Your task to perform on an android device: choose inbox layout in the gmail app Image 0: 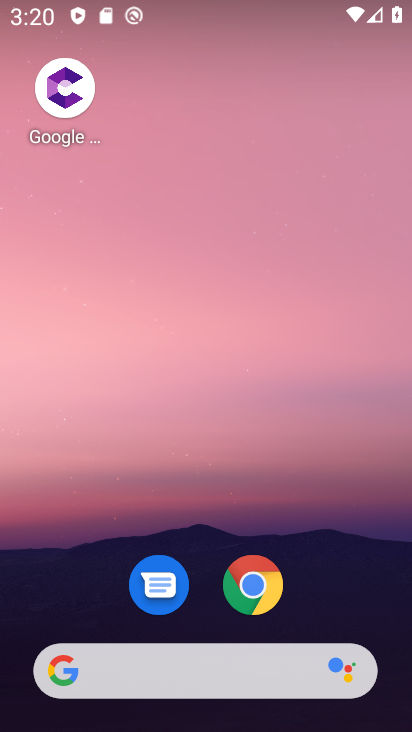
Step 0: drag from (191, 665) to (257, 11)
Your task to perform on an android device: choose inbox layout in the gmail app Image 1: 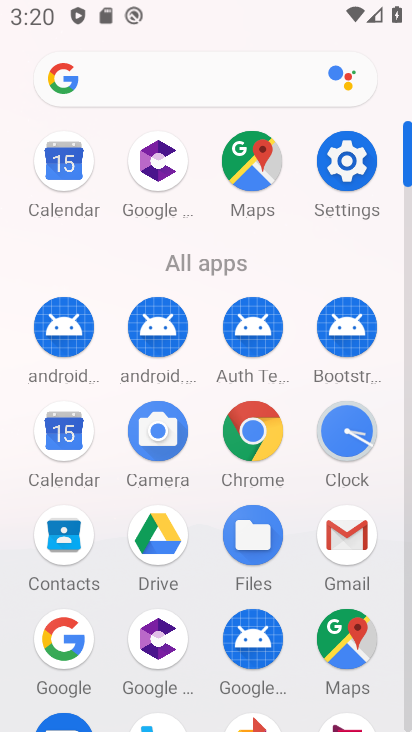
Step 1: click (336, 535)
Your task to perform on an android device: choose inbox layout in the gmail app Image 2: 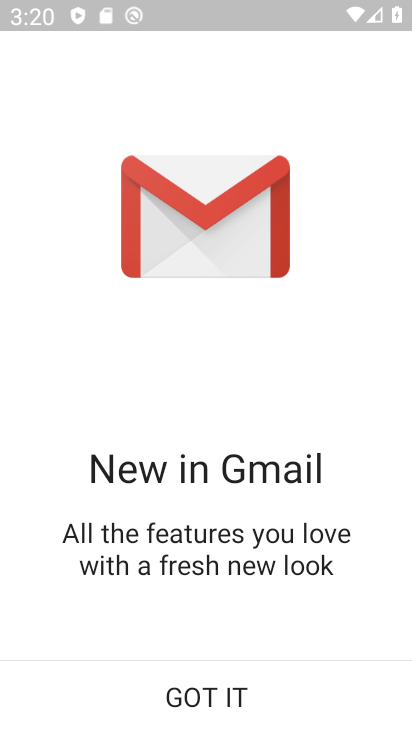
Step 2: click (217, 671)
Your task to perform on an android device: choose inbox layout in the gmail app Image 3: 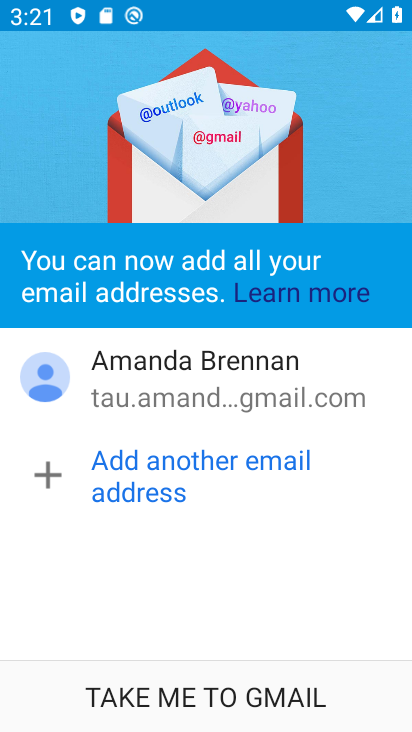
Step 3: click (231, 690)
Your task to perform on an android device: choose inbox layout in the gmail app Image 4: 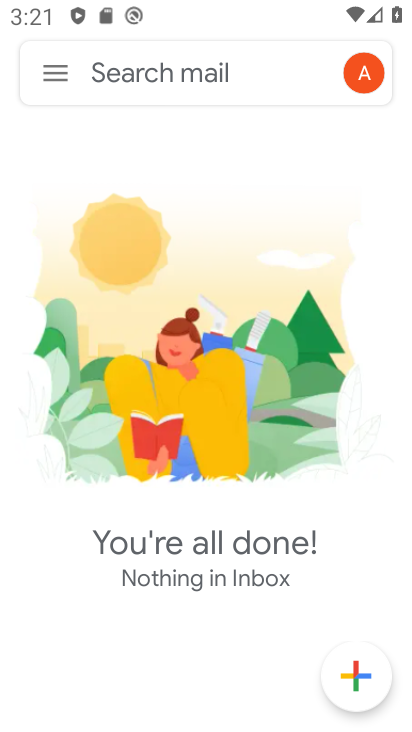
Step 4: click (53, 71)
Your task to perform on an android device: choose inbox layout in the gmail app Image 5: 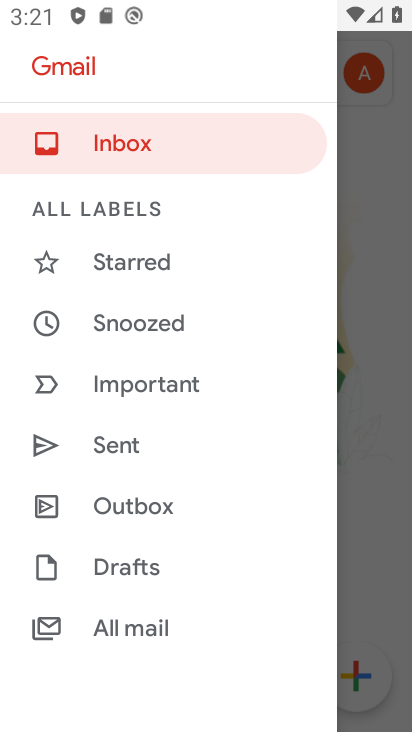
Step 5: drag from (137, 622) to (128, 55)
Your task to perform on an android device: choose inbox layout in the gmail app Image 6: 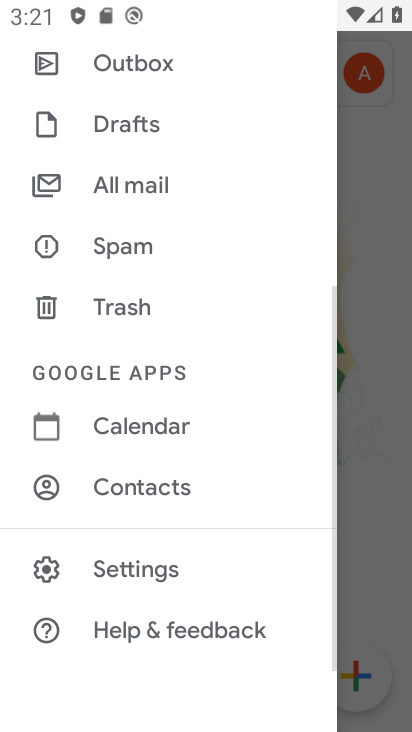
Step 6: click (137, 564)
Your task to perform on an android device: choose inbox layout in the gmail app Image 7: 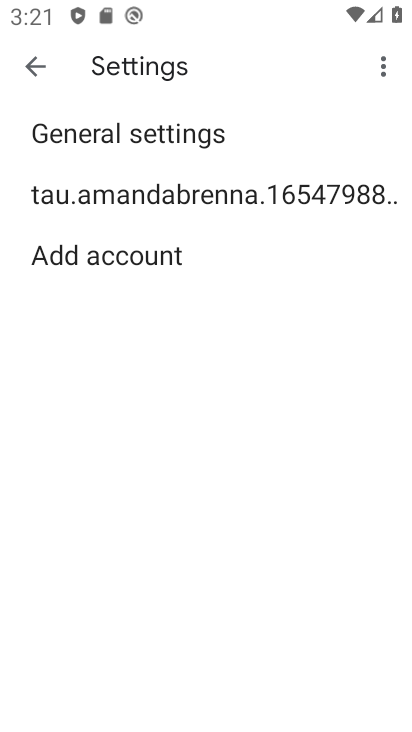
Step 7: click (152, 196)
Your task to perform on an android device: choose inbox layout in the gmail app Image 8: 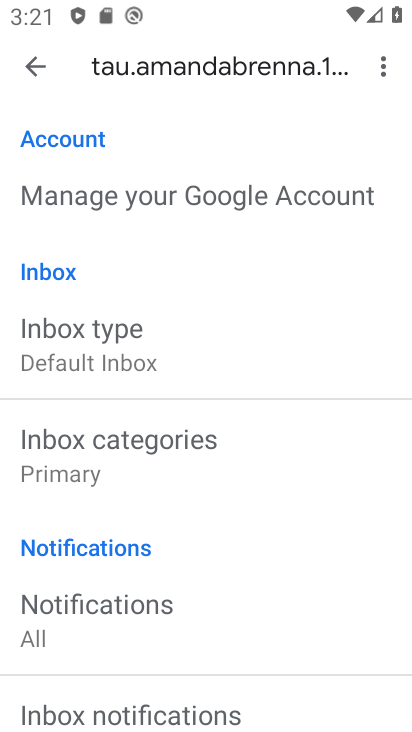
Step 8: click (136, 370)
Your task to perform on an android device: choose inbox layout in the gmail app Image 9: 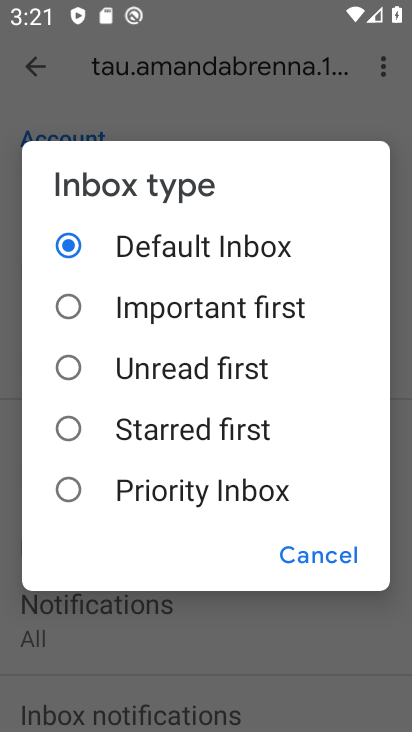
Step 9: click (130, 480)
Your task to perform on an android device: choose inbox layout in the gmail app Image 10: 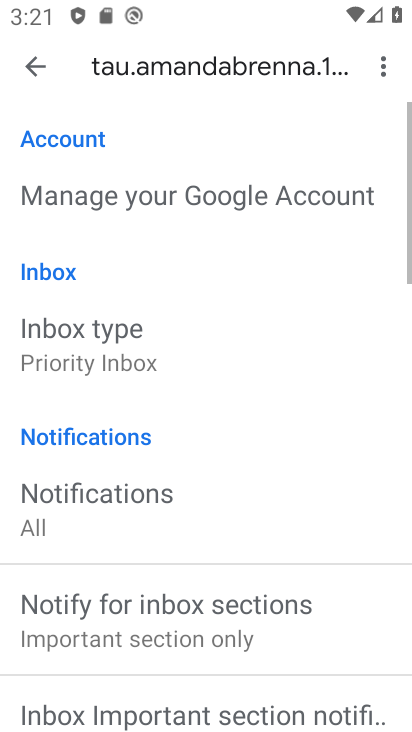
Step 10: task complete